Your task to perform on an android device: turn off improve location accuracy Image 0: 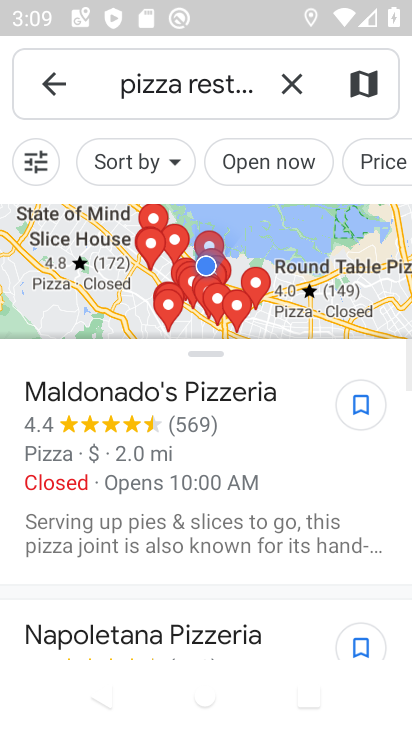
Step 0: press back button
Your task to perform on an android device: turn off improve location accuracy Image 1: 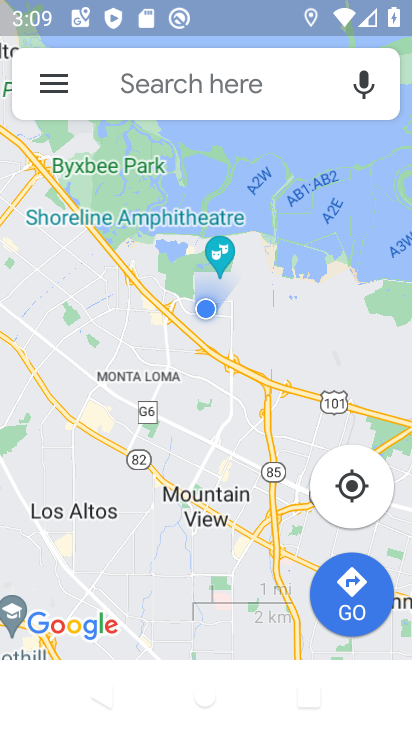
Step 1: press back button
Your task to perform on an android device: turn off improve location accuracy Image 2: 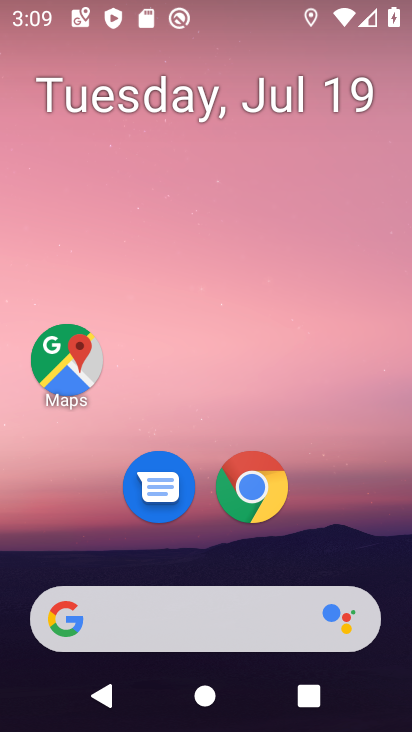
Step 2: drag from (213, 549) to (258, 19)
Your task to perform on an android device: turn off improve location accuracy Image 3: 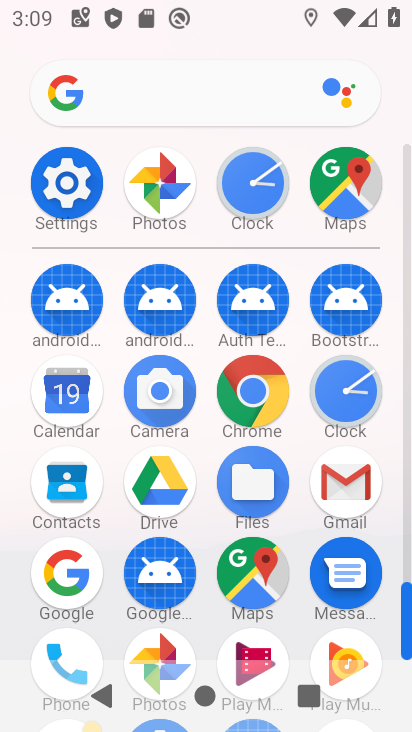
Step 3: click (71, 179)
Your task to perform on an android device: turn off improve location accuracy Image 4: 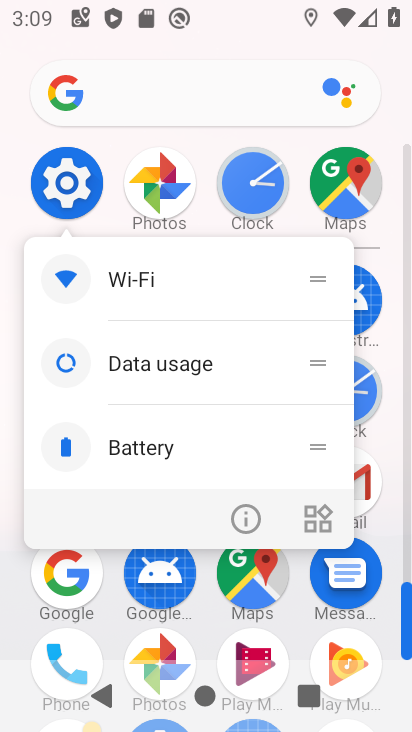
Step 4: click (64, 183)
Your task to perform on an android device: turn off improve location accuracy Image 5: 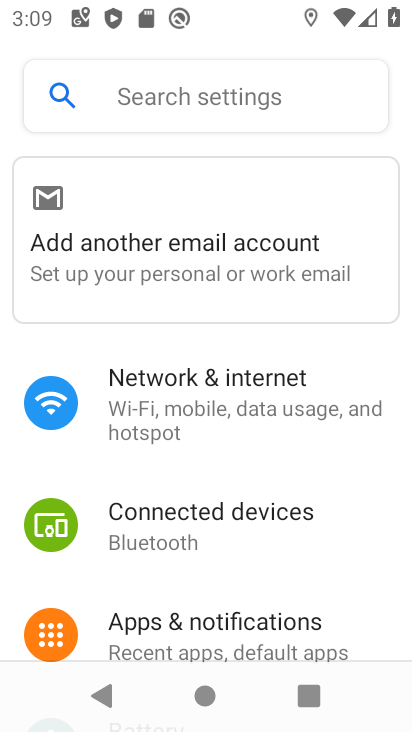
Step 5: drag from (195, 604) to (249, 70)
Your task to perform on an android device: turn off improve location accuracy Image 6: 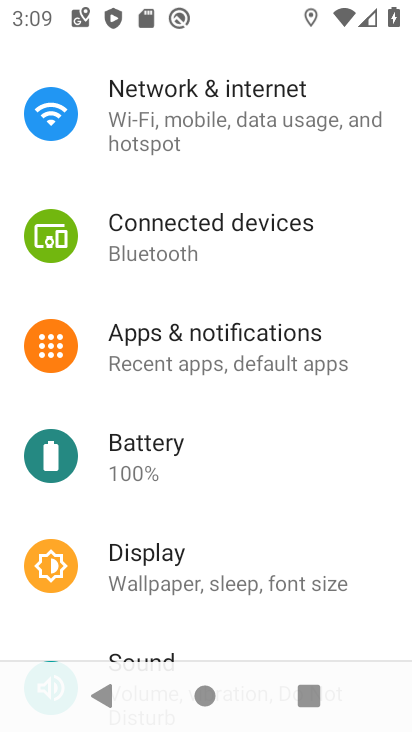
Step 6: drag from (177, 568) to (268, 50)
Your task to perform on an android device: turn off improve location accuracy Image 7: 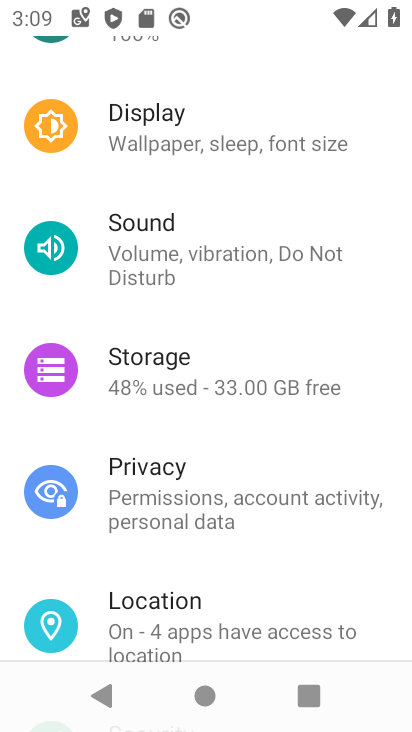
Step 7: click (176, 616)
Your task to perform on an android device: turn off improve location accuracy Image 8: 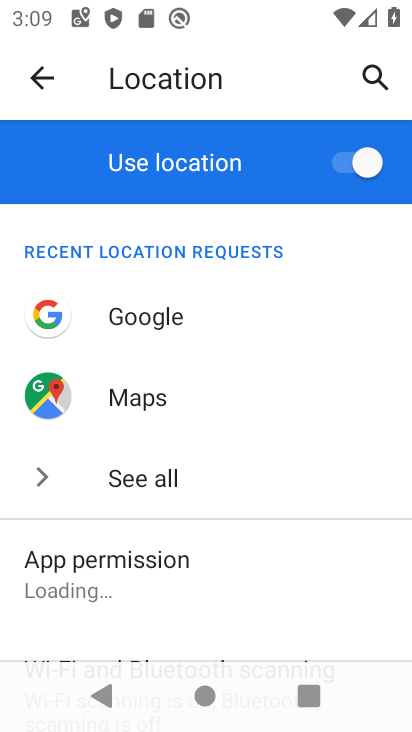
Step 8: drag from (116, 634) to (246, 165)
Your task to perform on an android device: turn off improve location accuracy Image 9: 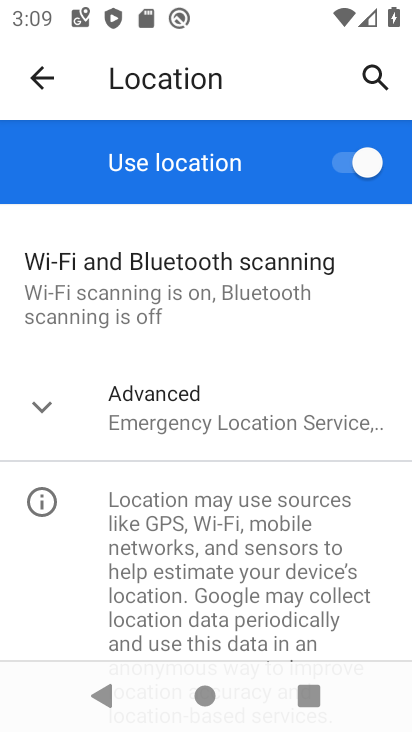
Step 9: click (231, 396)
Your task to perform on an android device: turn off improve location accuracy Image 10: 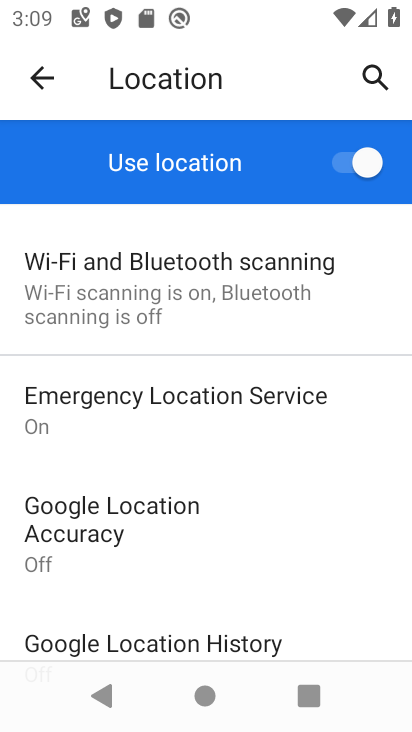
Step 10: click (107, 524)
Your task to perform on an android device: turn off improve location accuracy Image 11: 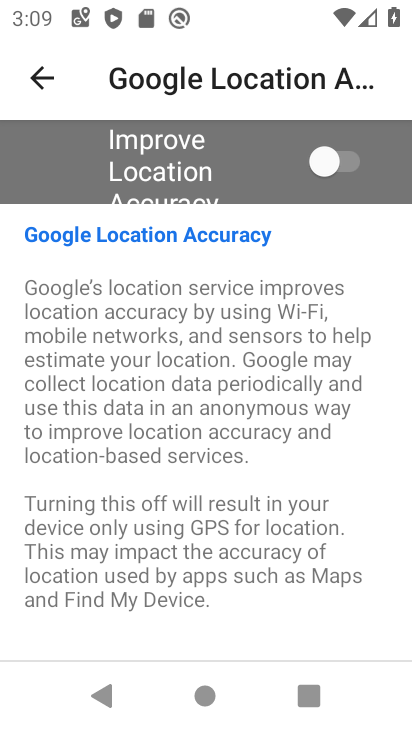
Step 11: task complete